Your task to perform on an android device: See recent photos Image 0: 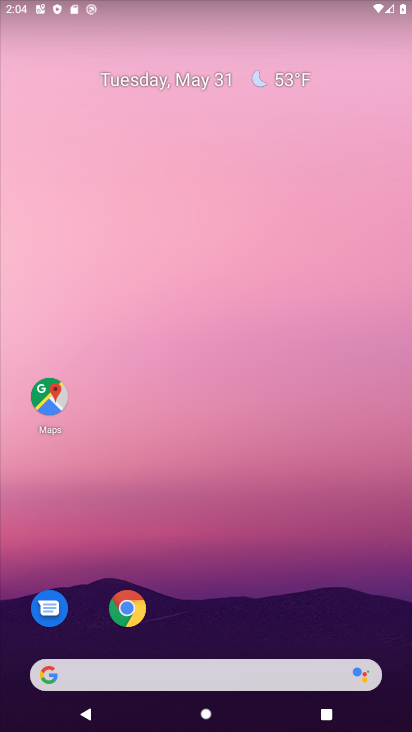
Step 0: press home button
Your task to perform on an android device: See recent photos Image 1: 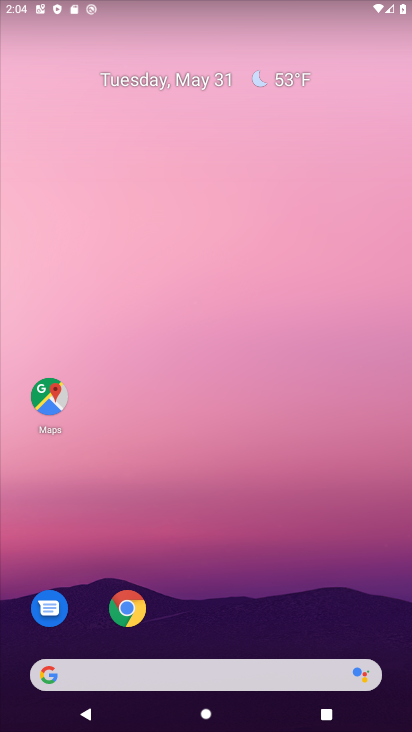
Step 1: drag from (331, 534) to (330, 34)
Your task to perform on an android device: See recent photos Image 2: 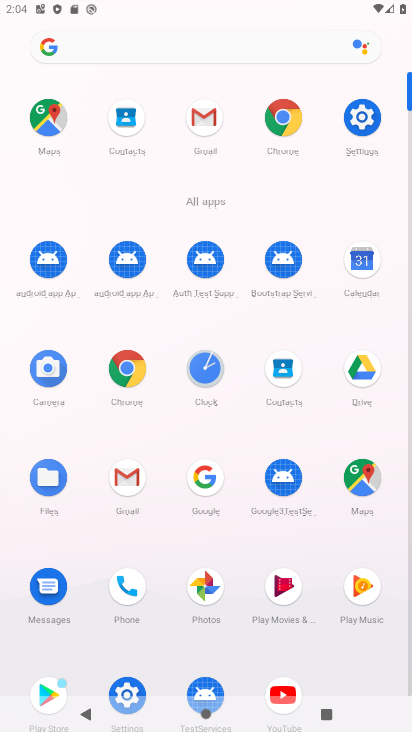
Step 2: click (208, 590)
Your task to perform on an android device: See recent photos Image 3: 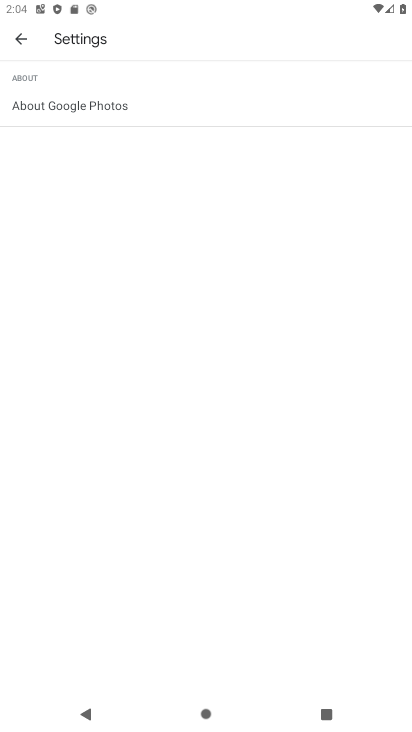
Step 3: press back button
Your task to perform on an android device: See recent photos Image 4: 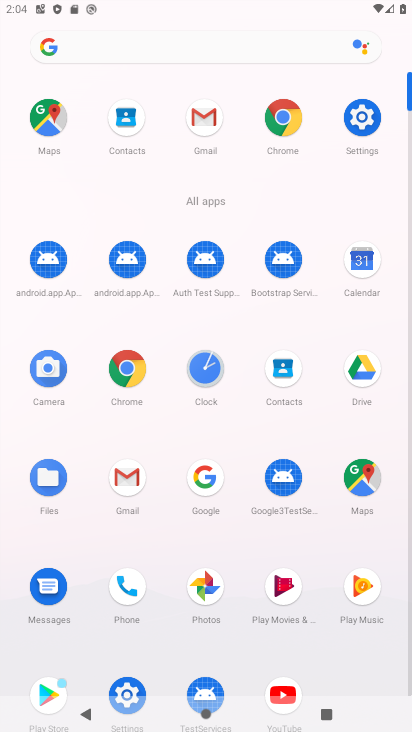
Step 4: click (207, 586)
Your task to perform on an android device: See recent photos Image 5: 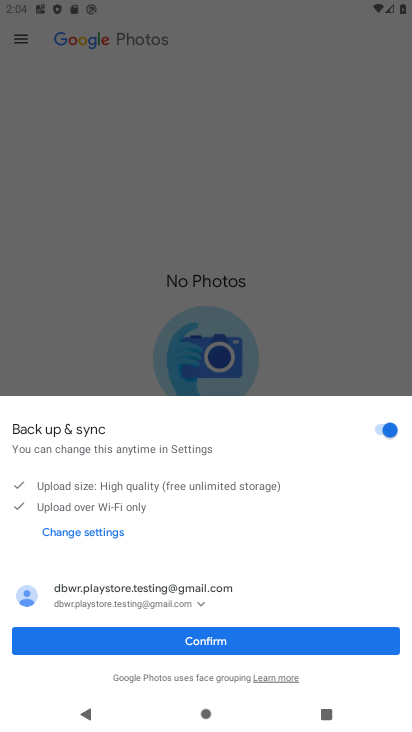
Step 5: click (225, 648)
Your task to perform on an android device: See recent photos Image 6: 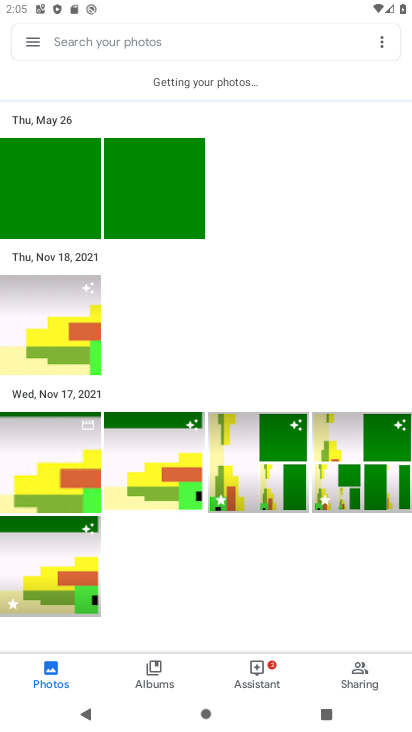
Step 6: task complete